Your task to perform on an android device: Open the phone app and click the voicemail tab. Image 0: 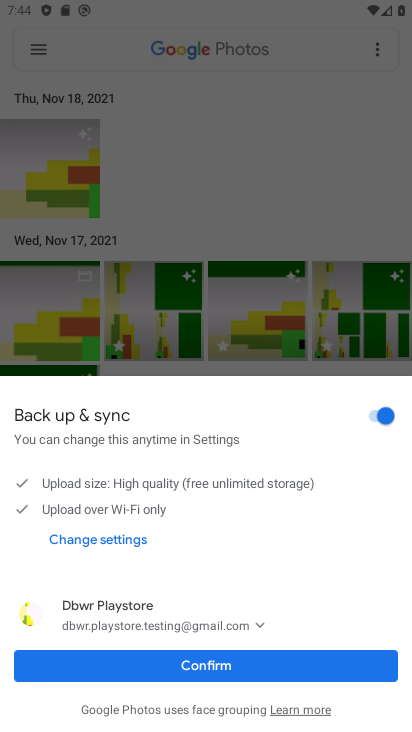
Step 0: click (63, 668)
Your task to perform on an android device: Open the phone app and click the voicemail tab. Image 1: 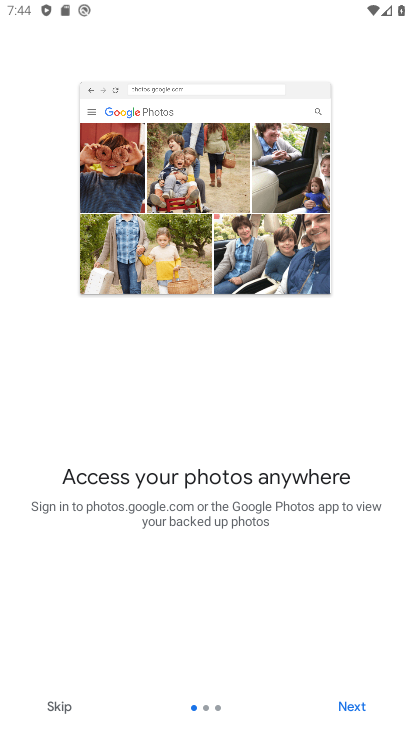
Step 1: click (355, 700)
Your task to perform on an android device: Open the phone app and click the voicemail tab. Image 2: 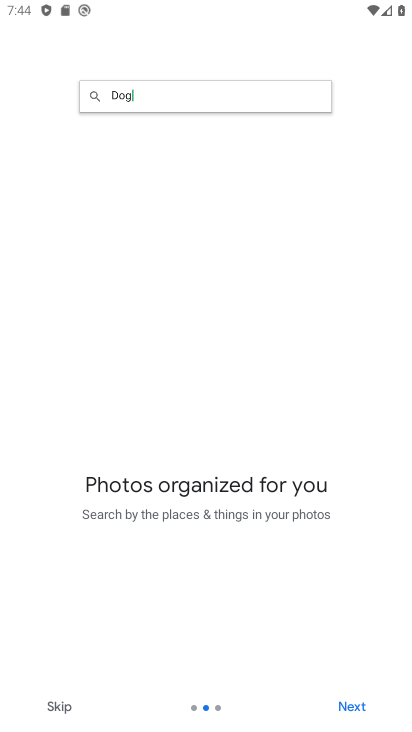
Step 2: click (356, 706)
Your task to perform on an android device: Open the phone app and click the voicemail tab. Image 3: 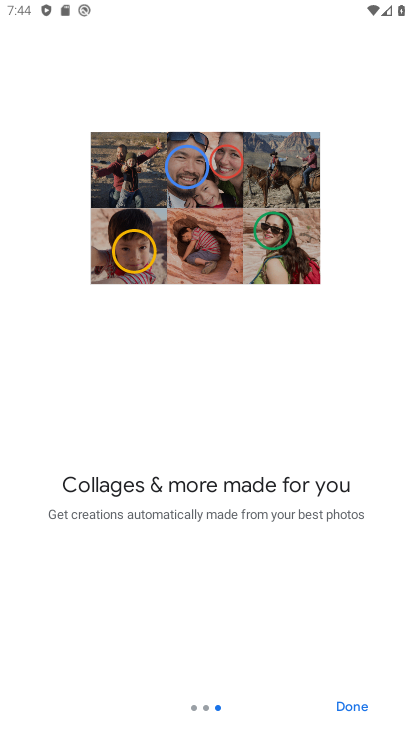
Step 3: click (356, 706)
Your task to perform on an android device: Open the phone app and click the voicemail tab. Image 4: 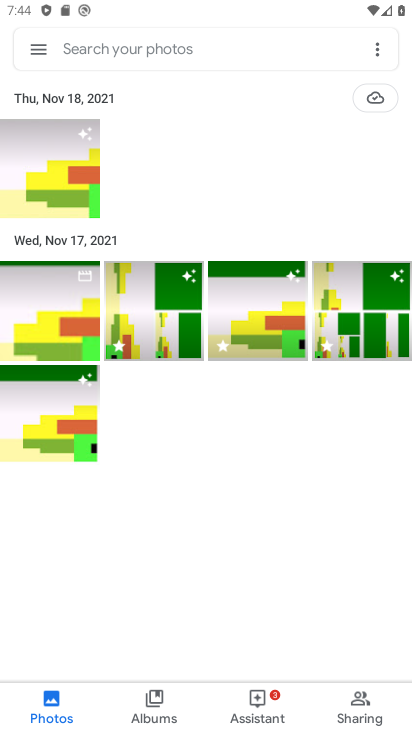
Step 4: press home button
Your task to perform on an android device: Open the phone app and click the voicemail tab. Image 5: 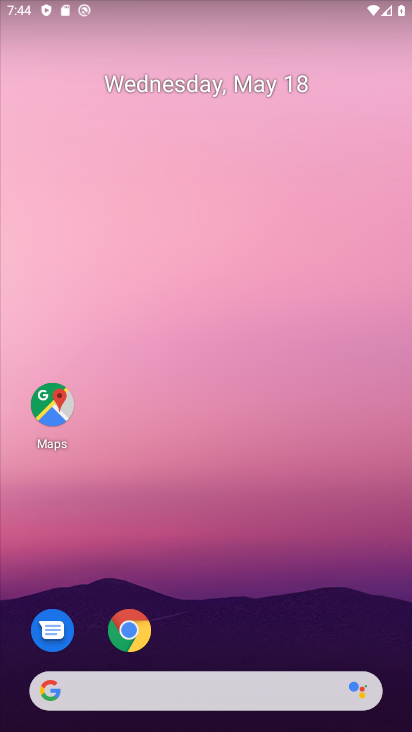
Step 5: drag from (184, 706) to (174, 0)
Your task to perform on an android device: Open the phone app and click the voicemail tab. Image 6: 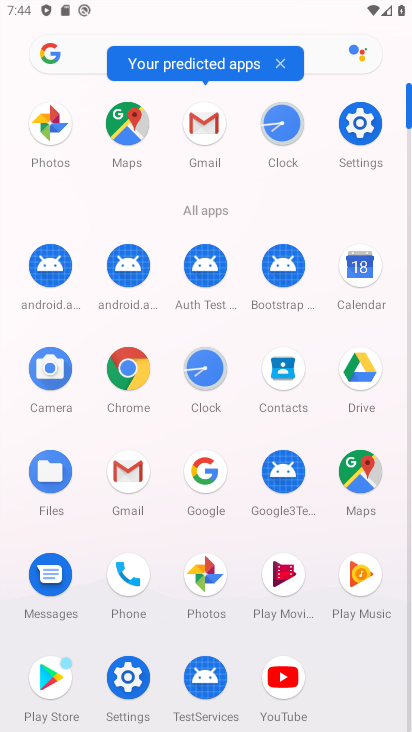
Step 6: click (119, 576)
Your task to perform on an android device: Open the phone app and click the voicemail tab. Image 7: 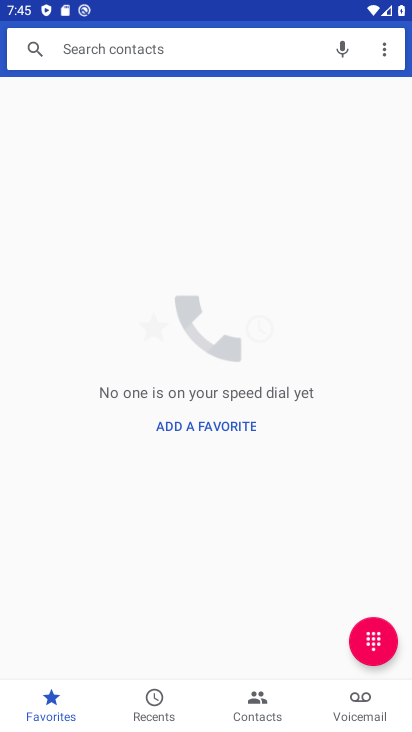
Step 7: click (352, 708)
Your task to perform on an android device: Open the phone app and click the voicemail tab. Image 8: 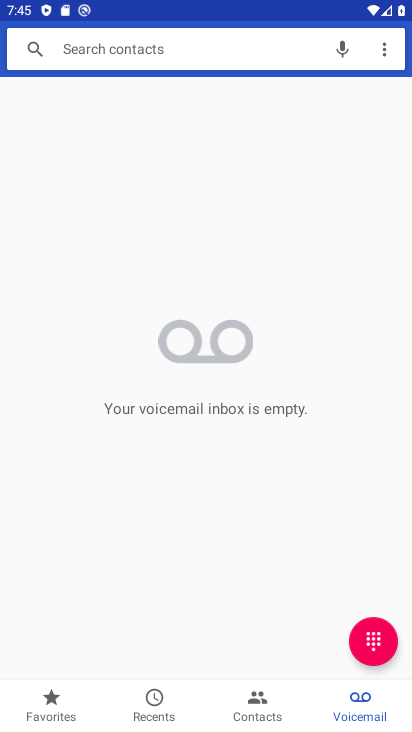
Step 8: task complete